Your task to perform on an android device: Go to privacy settings Image 0: 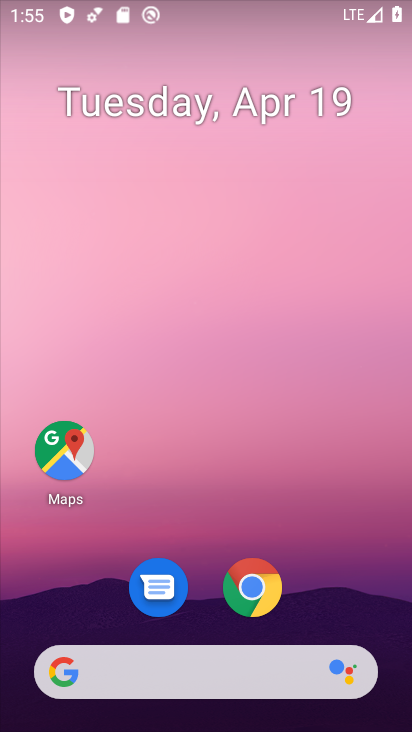
Step 0: drag from (267, 618) to (120, 151)
Your task to perform on an android device: Go to privacy settings Image 1: 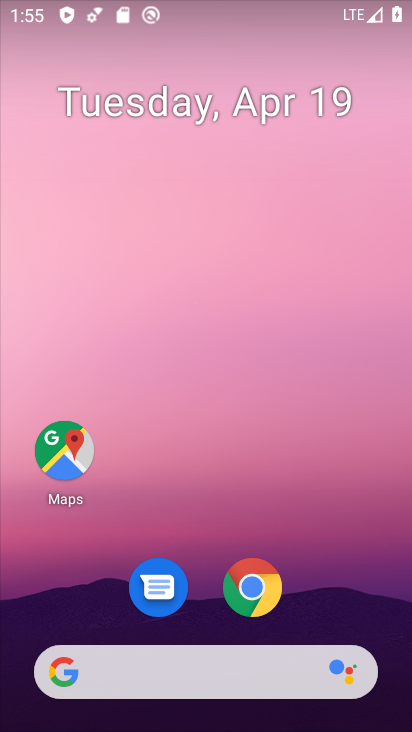
Step 1: click (130, 216)
Your task to perform on an android device: Go to privacy settings Image 2: 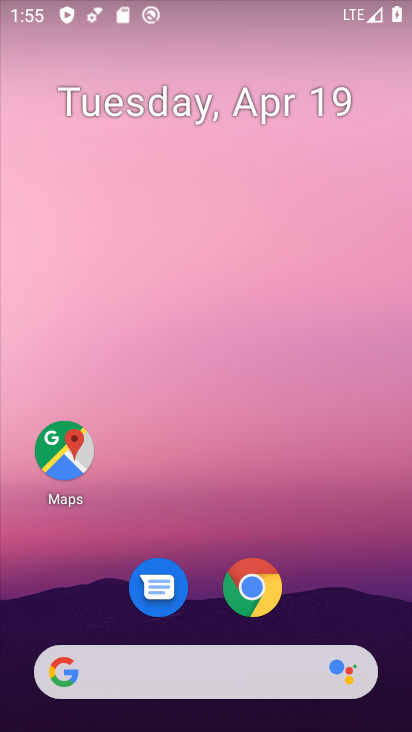
Step 2: drag from (310, 538) to (125, 9)
Your task to perform on an android device: Go to privacy settings Image 3: 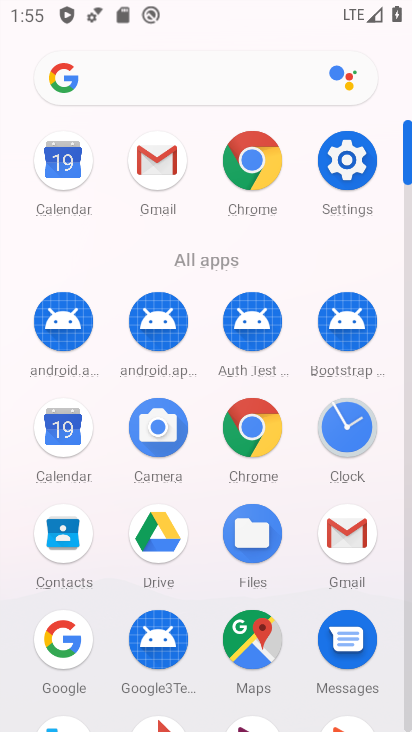
Step 3: click (358, 155)
Your task to perform on an android device: Go to privacy settings Image 4: 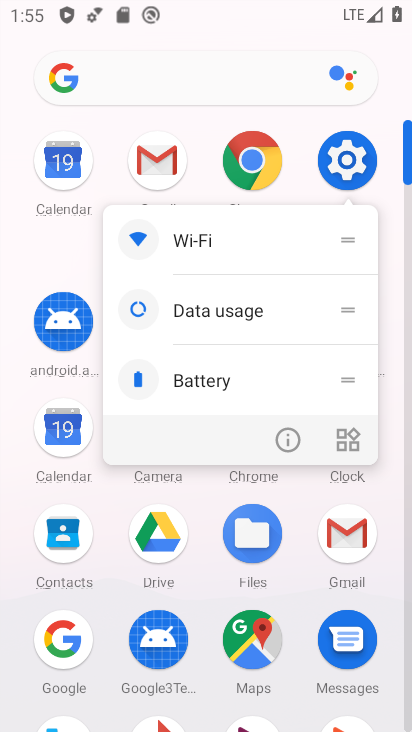
Step 4: click (338, 155)
Your task to perform on an android device: Go to privacy settings Image 5: 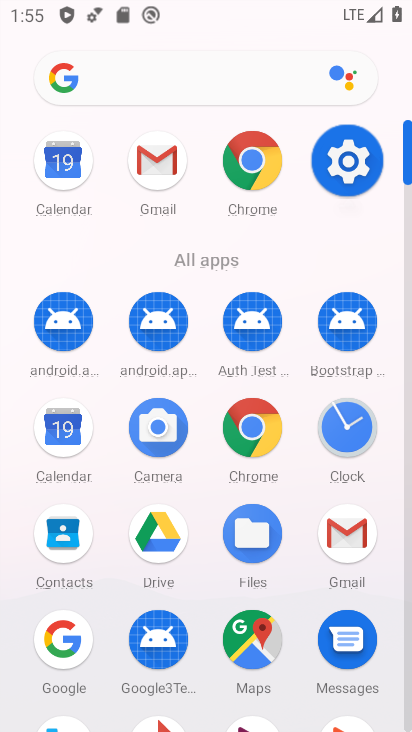
Step 5: click (338, 155)
Your task to perform on an android device: Go to privacy settings Image 6: 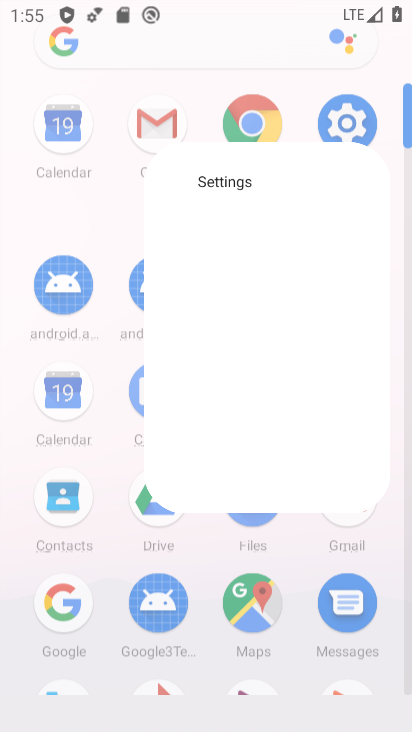
Step 6: click (338, 155)
Your task to perform on an android device: Go to privacy settings Image 7: 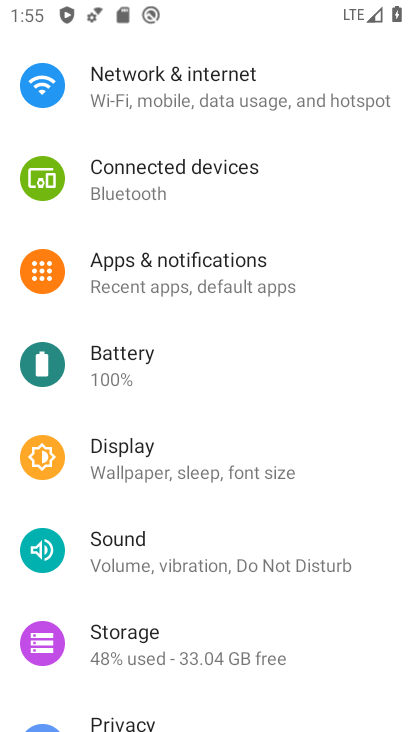
Step 7: drag from (182, 469) to (178, 138)
Your task to perform on an android device: Go to privacy settings Image 8: 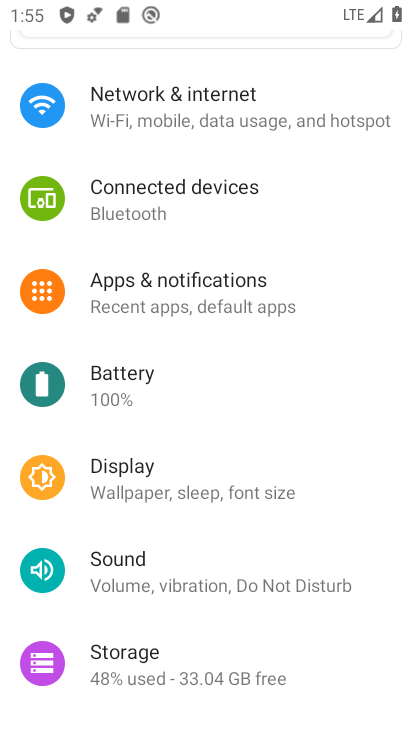
Step 8: drag from (206, 533) to (144, 179)
Your task to perform on an android device: Go to privacy settings Image 9: 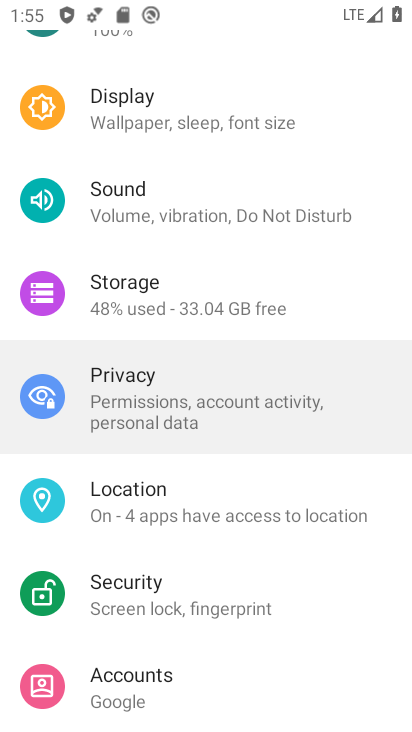
Step 9: drag from (236, 497) to (199, 267)
Your task to perform on an android device: Go to privacy settings Image 10: 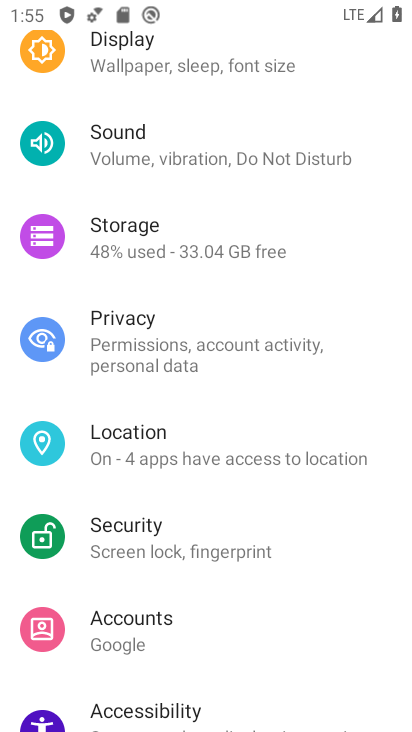
Step 10: click (116, 478)
Your task to perform on an android device: Go to privacy settings Image 11: 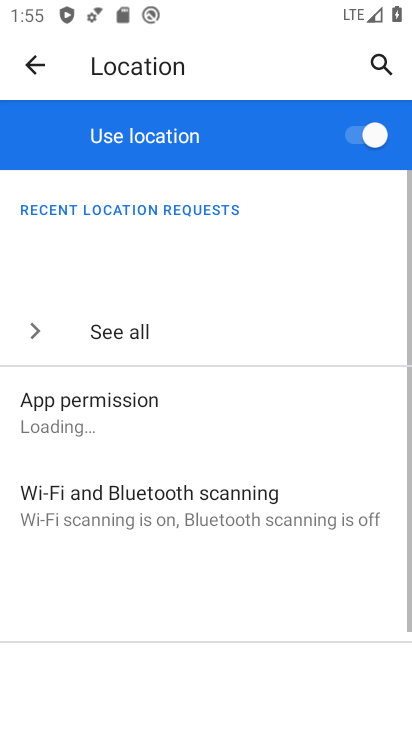
Step 11: click (116, 478)
Your task to perform on an android device: Go to privacy settings Image 12: 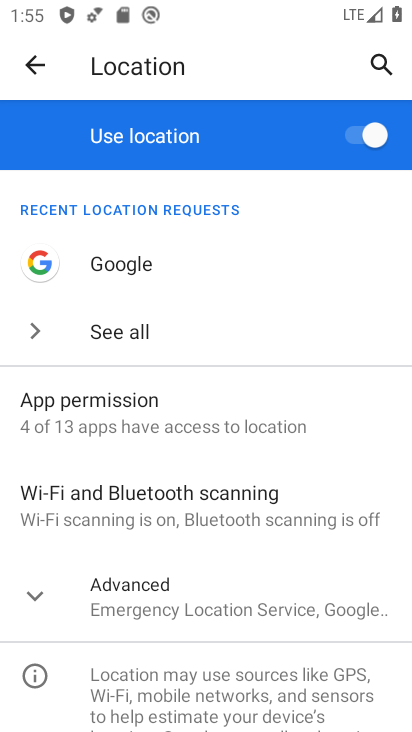
Step 12: click (26, 61)
Your task to perform on an android device: Go to privacy settings Image 13: 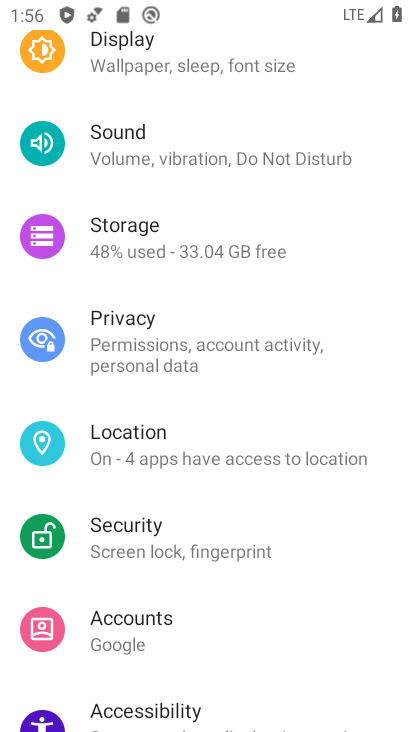
Step 13: click (132, 344)
Your task to perform on an android device: Go to privacy settings Image 14: 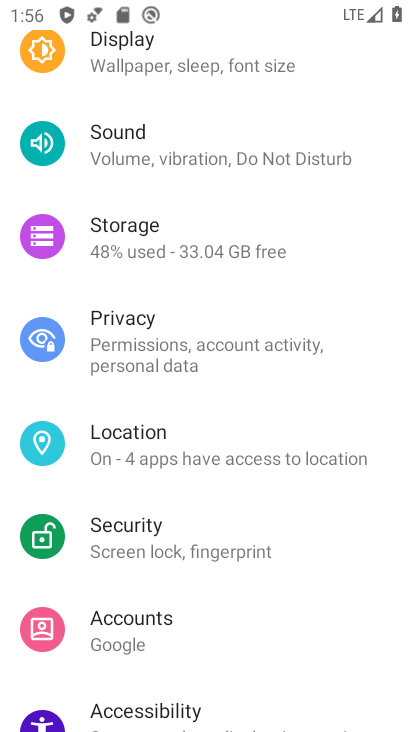
Step 14: click (132, 344)
Your task to perform on an android device: Go to privacy settings Image 15: 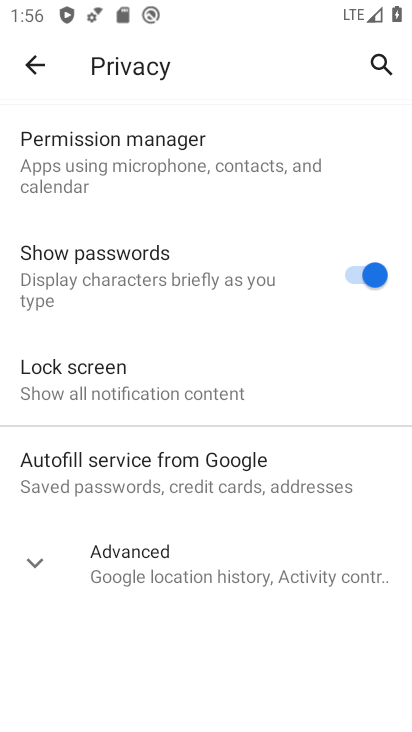
Step 15: task complete